Your task to perform on an android device: Open network settings Image 0: 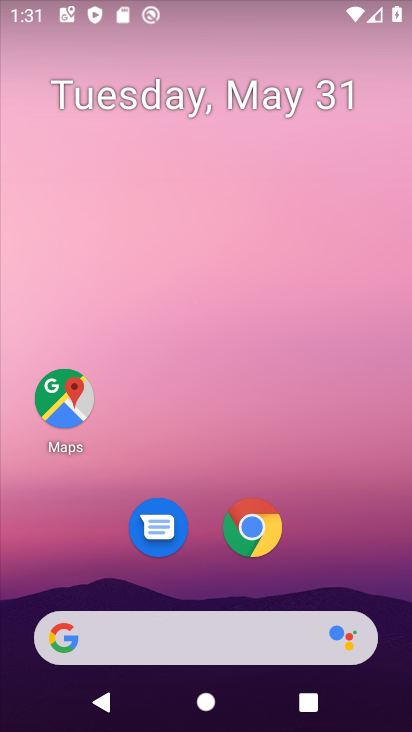
Step 0: drag from (384, 557) to (360, 3)
Your task to perform on an android device: Open network settings Image 1: 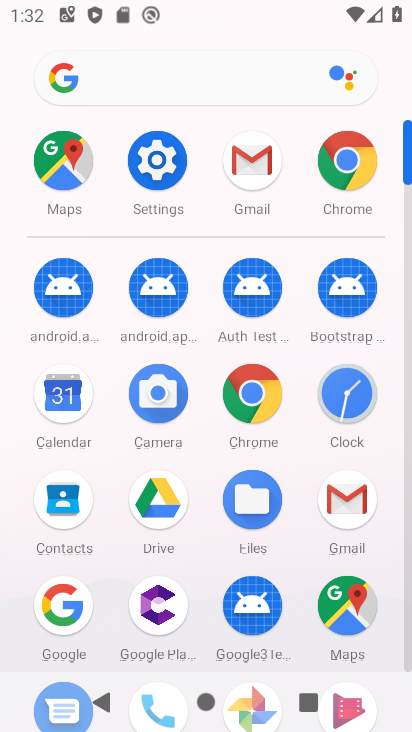
Step 1: click (164, 173)
Your task to perform on an android device: Open network settings Image 2: 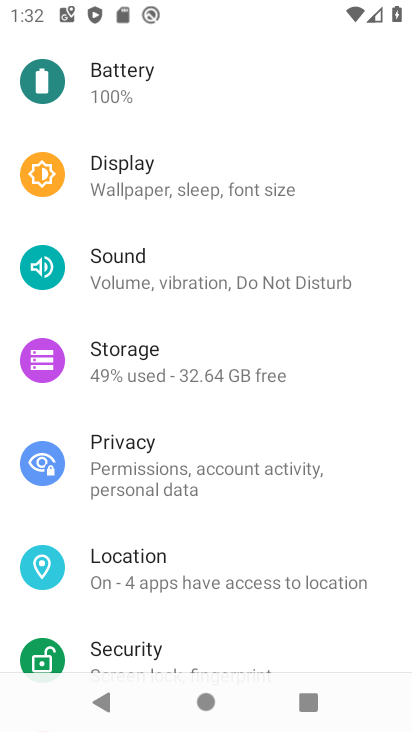
Step 2: drag from (223, 132) to (298, 534)
Your task to perform on an android device: Open network settings Image 3: 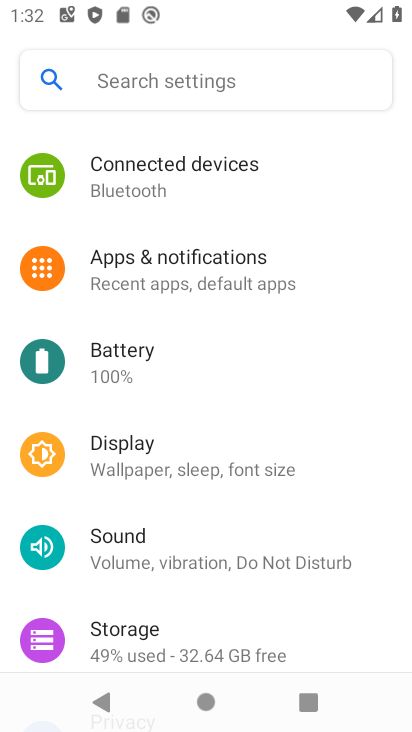
Step 3: drag from (287, 184) to (312, 519)
Your task to perform on an android device: Open network settings Image 4: 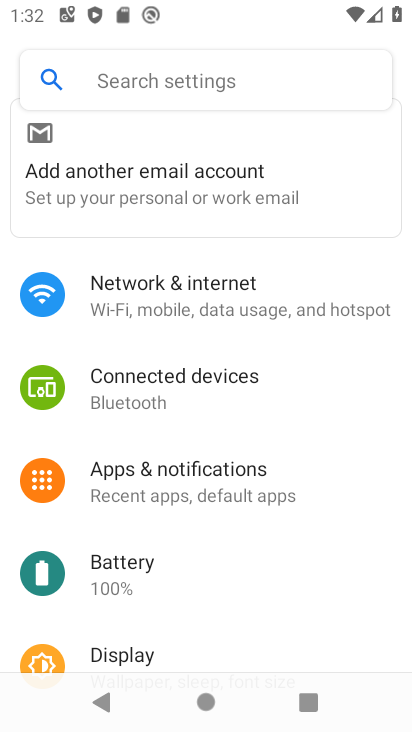
Step 4: click (202, 321)
Your task to perform on an android device: Open network settings Image 5: 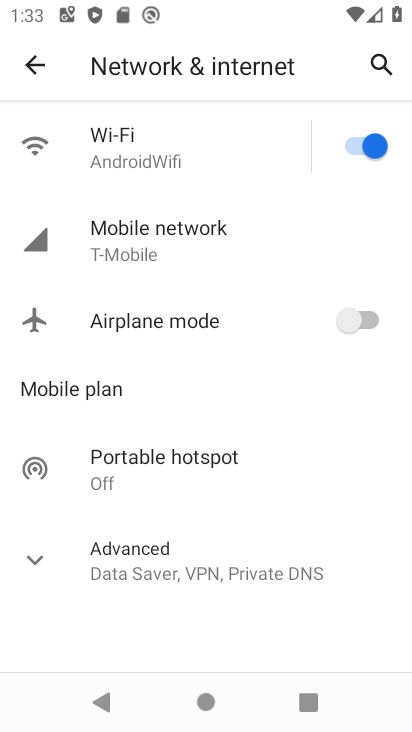
Step 5: task complete